Your task to perform on an android device: Open the map Image 0: 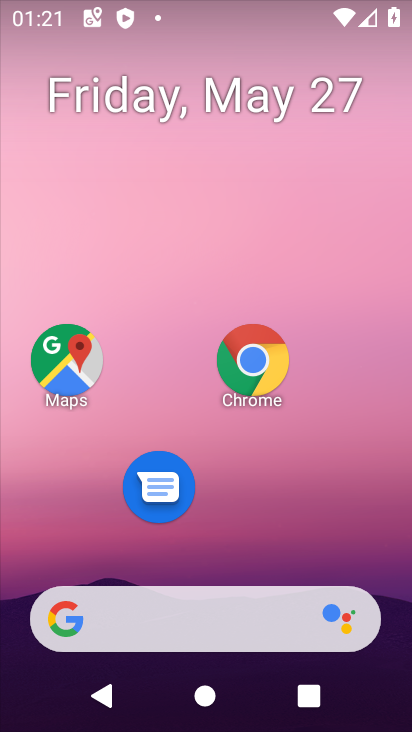
Step 0: click (68, 364)
Your task to perform on an android device: Open the map Image 1: 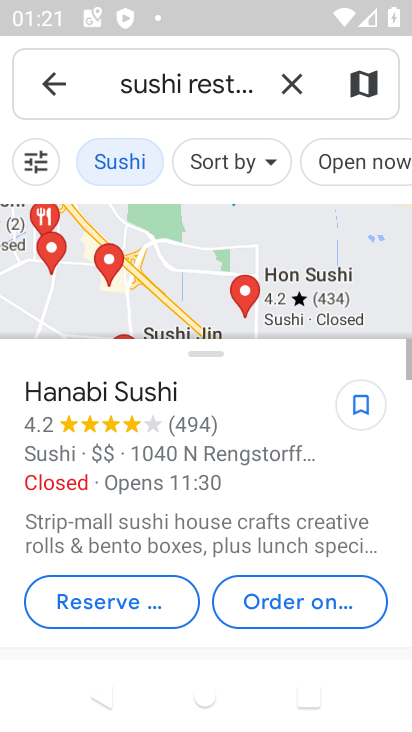
Step 1: task complete